Your task to perform on an android device: Go to calendar. Show me events next week Image 0: 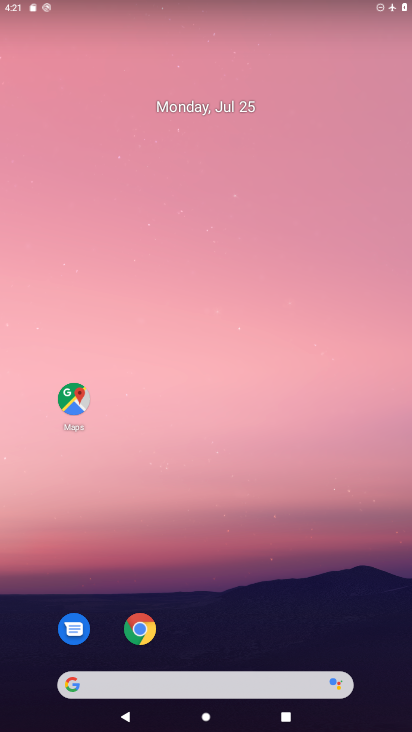
Step 0: drag from (275, 684) to (279, 11)
Your task to perform on an android device: Go to calendar. Show me events next week Image 1: 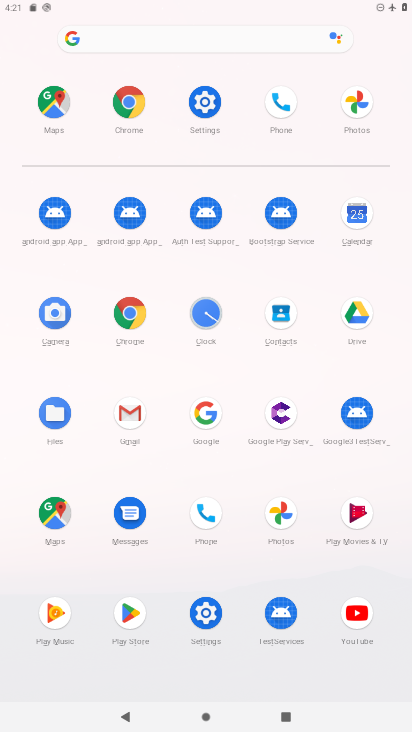
Step 1: click (360, 207)
Your task to perform on an android device: Go to calendar. Show me events next week Image 2: 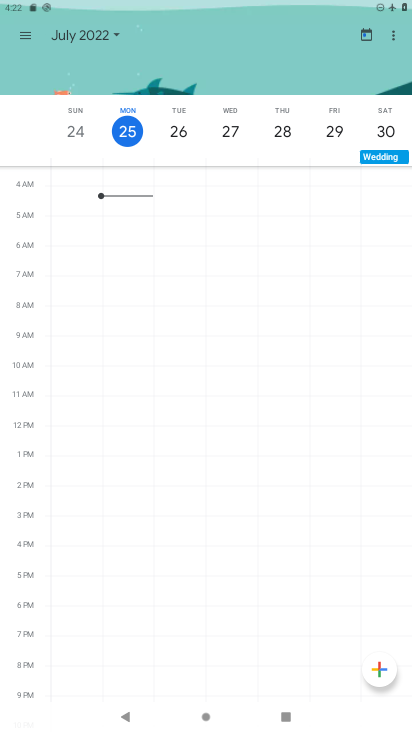
Step 2: task complete